Your task to perform on an android device: turn off translation in the chrome app Image 0: 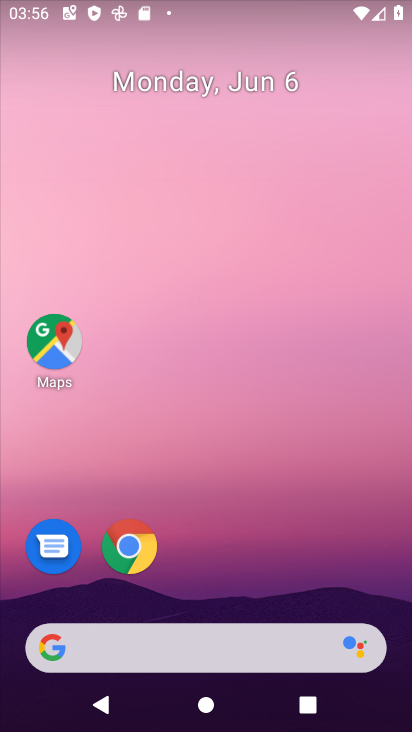
Step 0: click (145, 523)
Your task to perform on an android device: turn off translation in the chrome app Image 1: 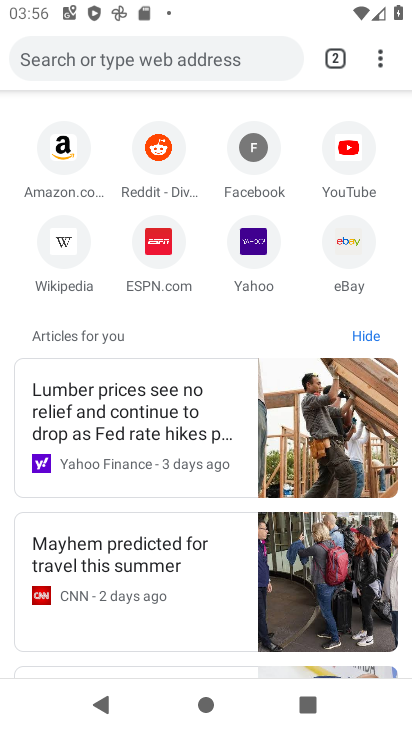
Step 1: click (384, 53)
Your task to perform on an android device: turn off translation in the chrome app Image 2: 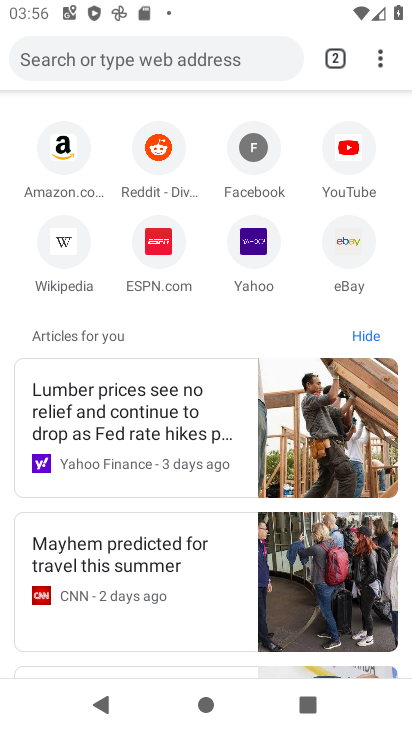
Step 2: click (383, 50)
Your task to perform on an android device: turn off translation in the chrome app Image 3: 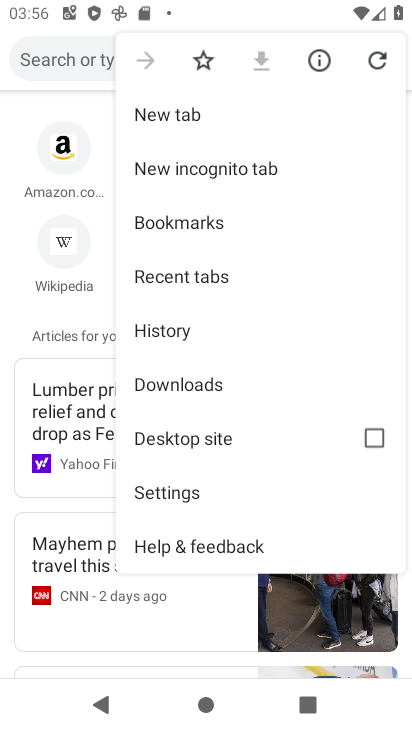
Step 3: click (223, 476)
Your task to perform on an android device: turn off translation in the chrome app Image 4: 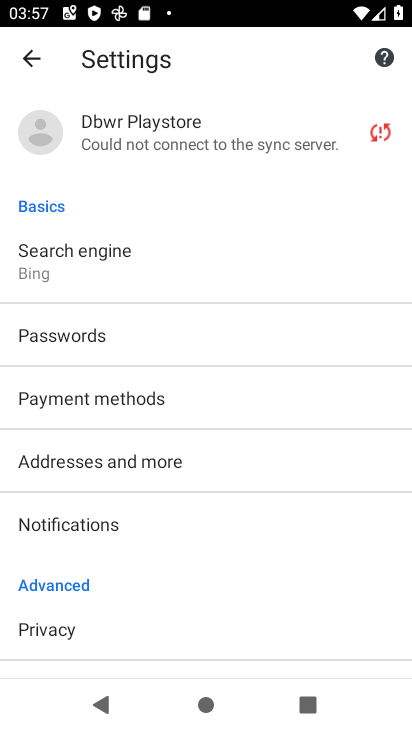
Step 4: task complete